Your task to perform on an android device: Open calendar and show me the second week of next month Image 0: 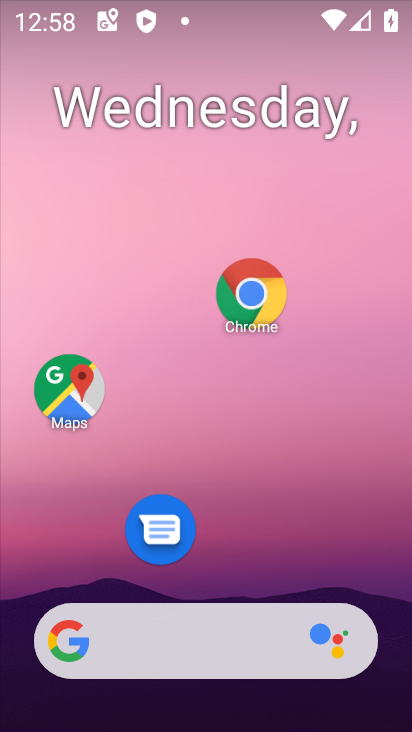
Step 0: drag from (317, 558) to (326, 375)
Your task to perform on an android device: Open calendar and show me the second week of next month Image 1: 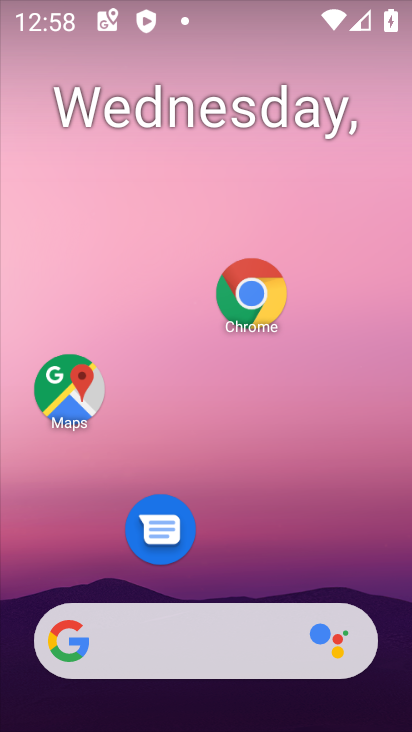
Step 1: drag from (297, 563) to (380, 498)
Your task to perform on an android device: Open calendar and show me the second week of next month Image 2: 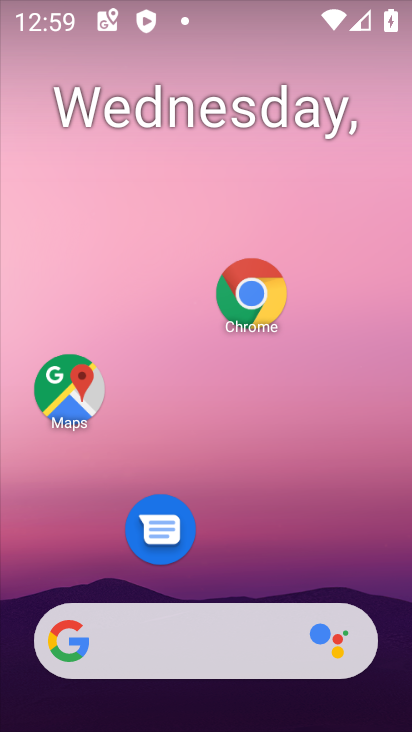
Step 2: drag from (318, 590) to (362, 173)
Your task to perform on an android device: Open calendar and show me the second week of next month Image 3: 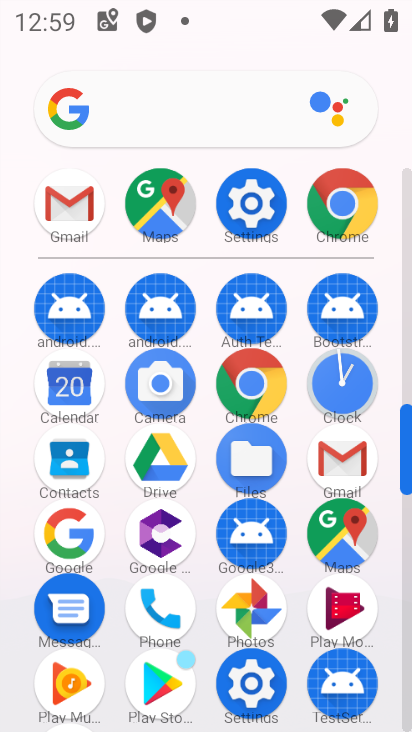
Step 3: click (85, 396)
Your task to perform on an android device: Open calendar and show me the second week of next month Image 4: 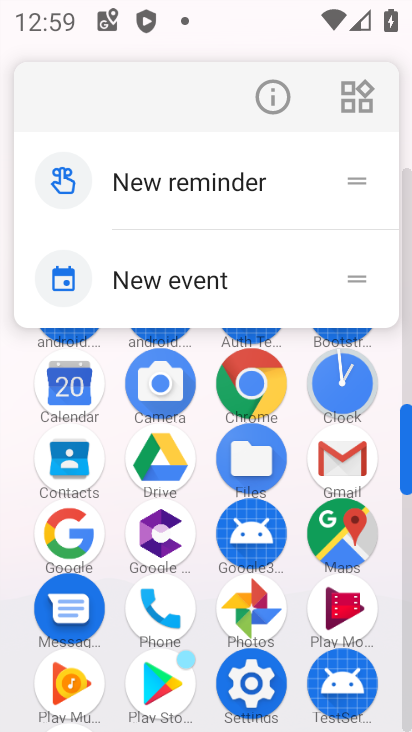
Step 4: click (85, 396)
Your task to perform on an android device: Open calendar and show me the second week of next month Image 5: 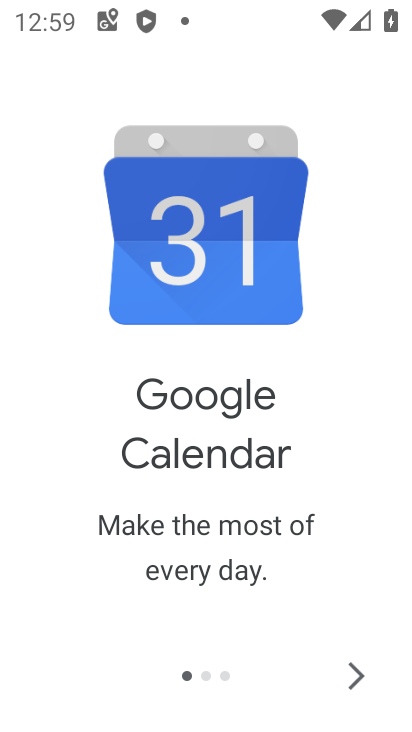
Step 5: click (353, 683)
Your task to perform on an android device: Open calendar and show me the second week of next month Image 6: 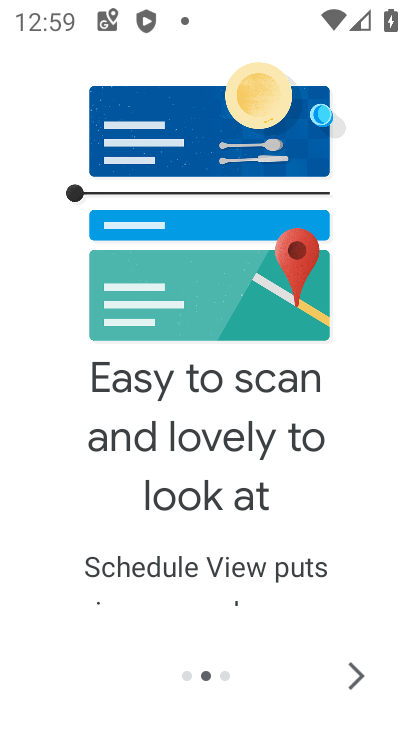
Step 6: click (353, 682)
Your task to perform on an android device: Open calendar and show me the second week of next month Image 7: 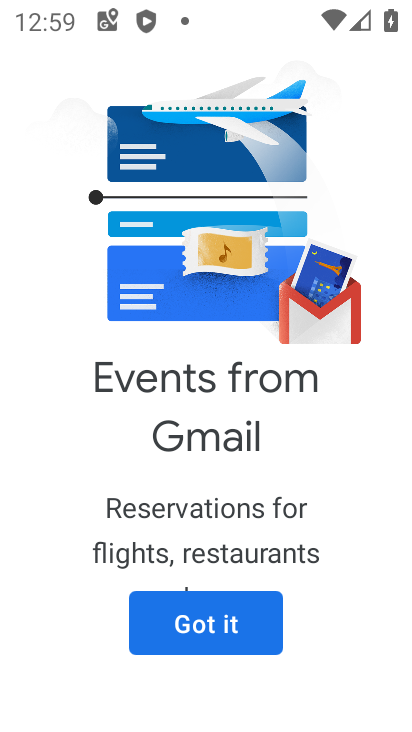
Step 7: click (251, 645)
Your task to perform on an android device: Open calendar and show me the second week of next month Image 8: 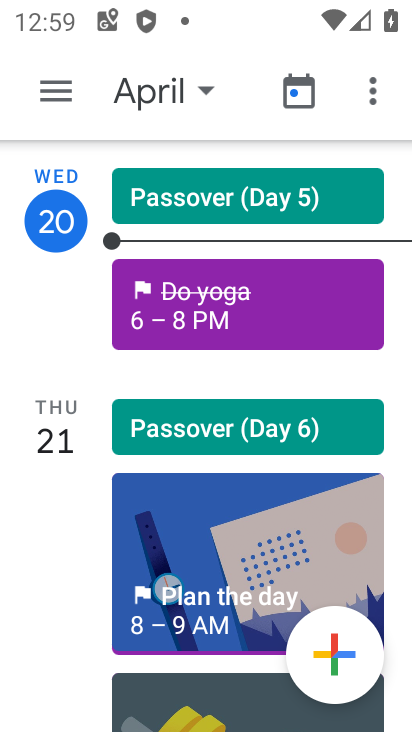
Step 8: click (210, 98)
Your task to perform on an android device: Open calendar and show me the second week of next month Image 9: 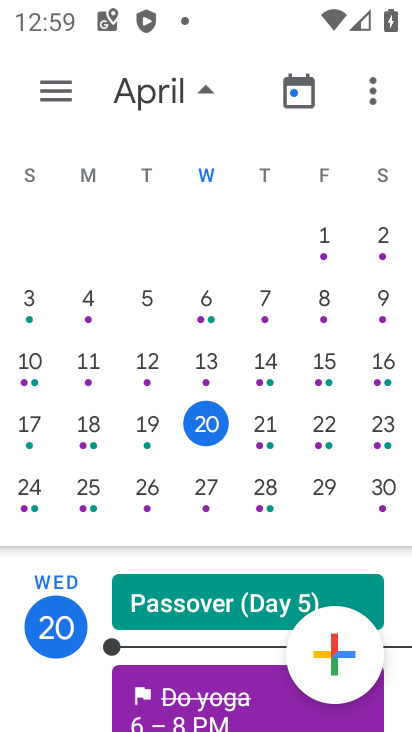
Step 9: drag from (335, 409) to (38, 352)
Your task to perform on an android device: Open calendar and show me the second week of next month Image 10: 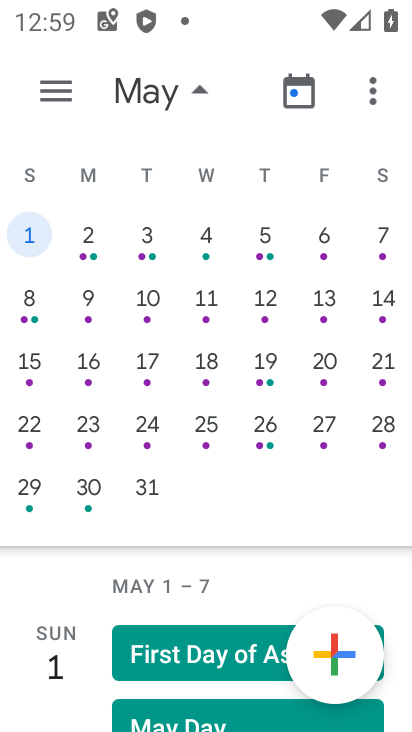
Step 10: click (27, 320)
Your task to perform on an android device: Open calendar and show me the second week of next month Image 11: 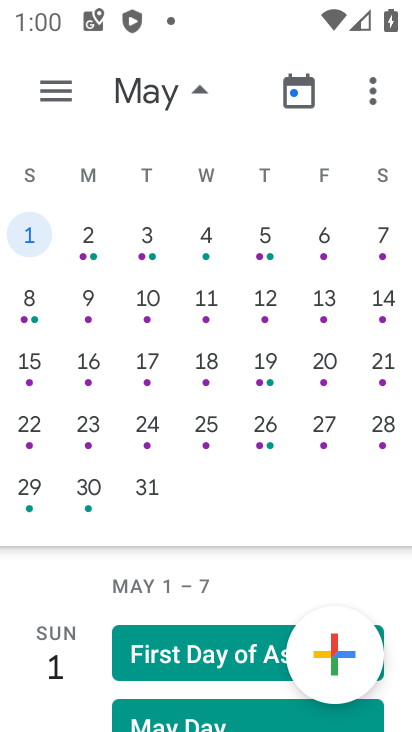
Step 11: click (37, 320)
Your task to perform on an android device: Open calendar and show me the second week of next month Image 12: 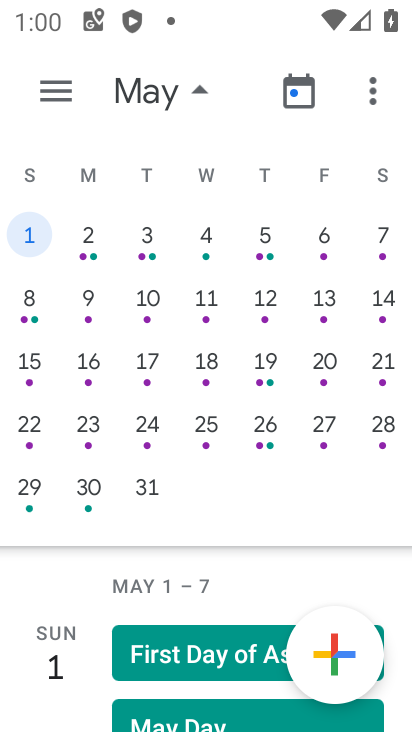
Step 12: click (27, 323)
Your task to perform on an android device: Open calendar and show me the second week of next month Image 13: 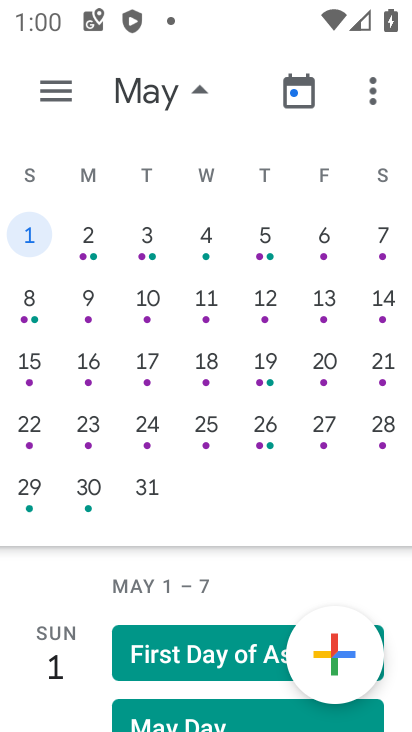
Step 13: click (40, 315)
Your task to perform on an android device: Open calendar and show me the second week of next month Image 14: 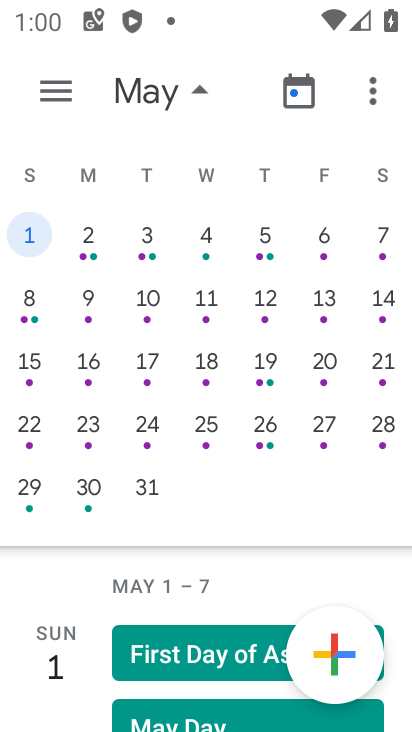
Step 14: click (40, 315)
Your task to perform on an android device: Open calendar and show me the second week of next month Image 15: 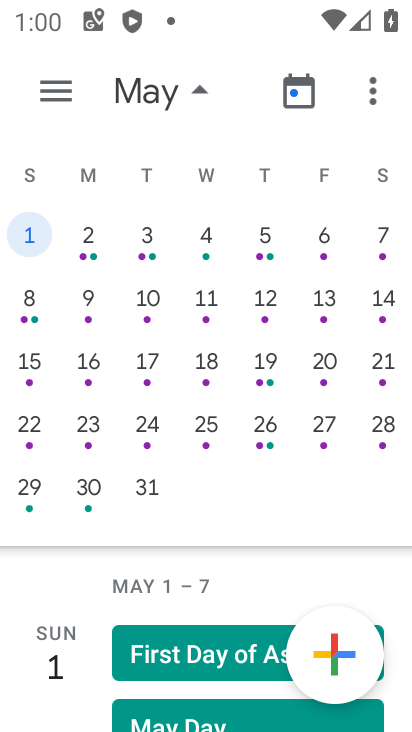
Step 15: click (38, 324)
Your task to perform on an android device: Open calendar and show me the second week of next month Image 16: 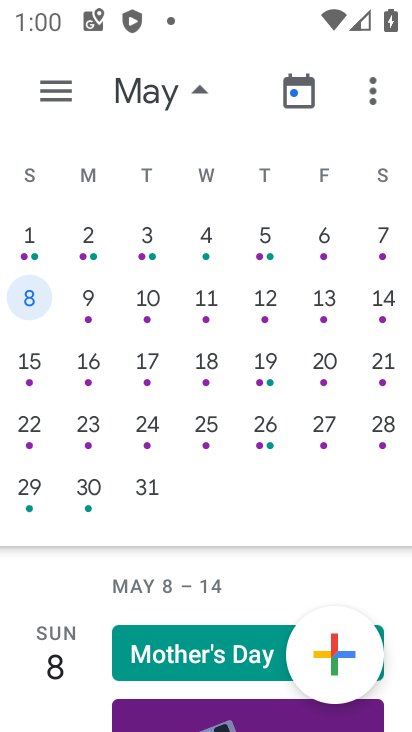
Step 16: task complete